Your task to perform on an android device: Open Chrome and go to settings Image 0: 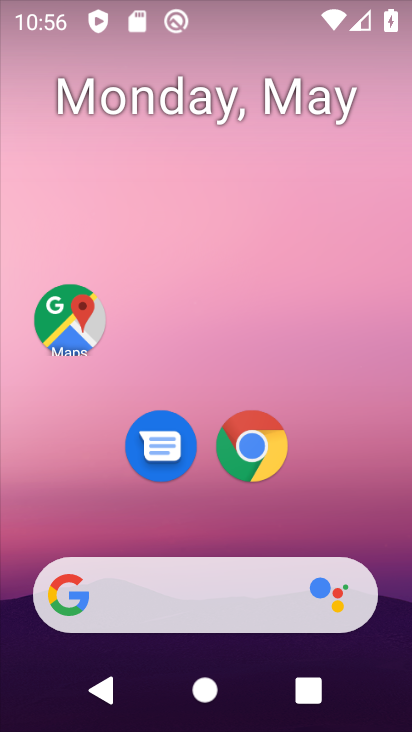
Step 0: click (264, 446)
Your task to perform on an android device: Open Chrome and go to settings Image 1: 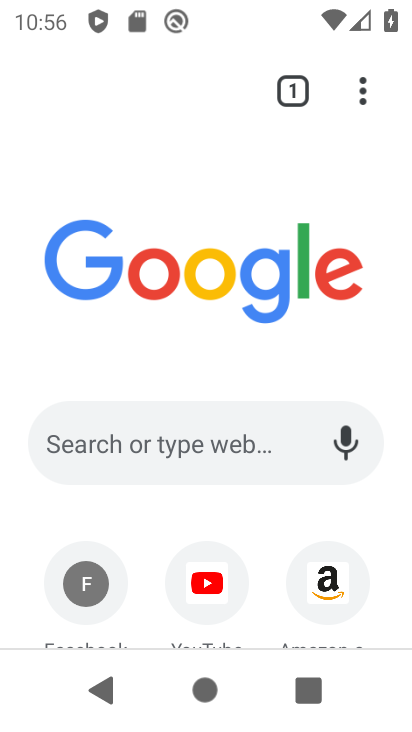
Step 1: click (364, 87)
Your task to perform on an android device: Open Chrome and go to settings Image 2: 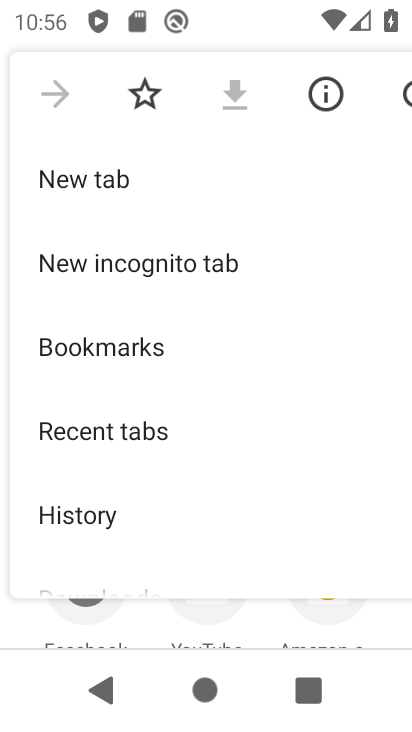
Step 2: drag from (247, 490) to (155, 140)
Your task to perform on an android device: Open Chrome and go to settings Image 3: 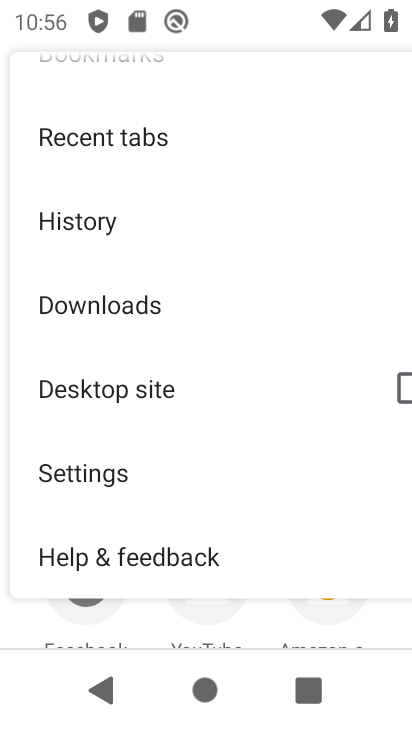
Step 3: click (91, 466)
Your task to perform on an android device: Open Chrome and go to settings Image 4: 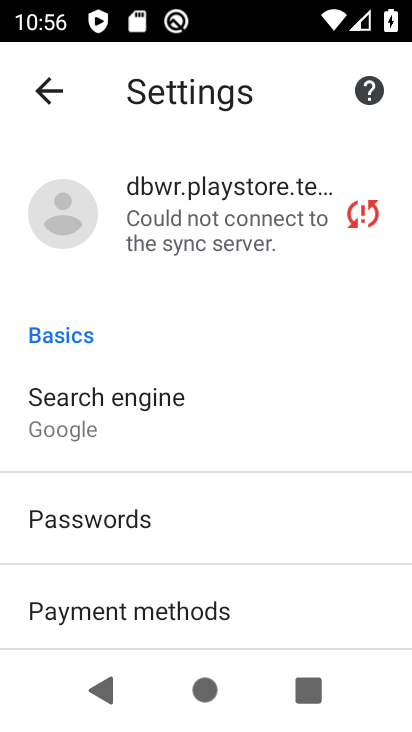
Step 4: task complete